Your task to perform on an android device: What's on my calendar tomorrow? Image 0: 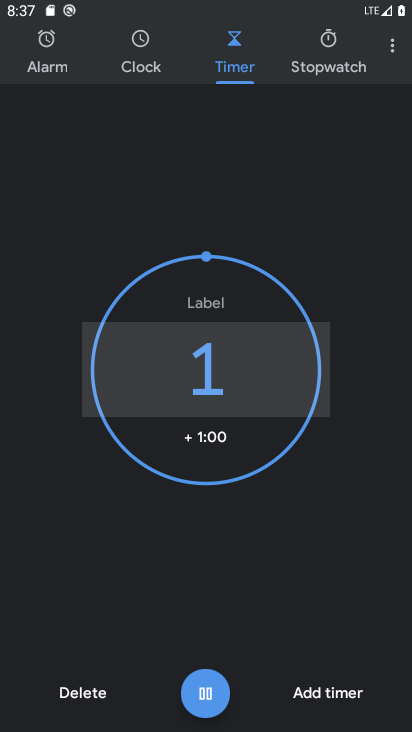
Step 0: press home button
Your task to perform on an android device: What's on my calendar tomorrow? Image 1: 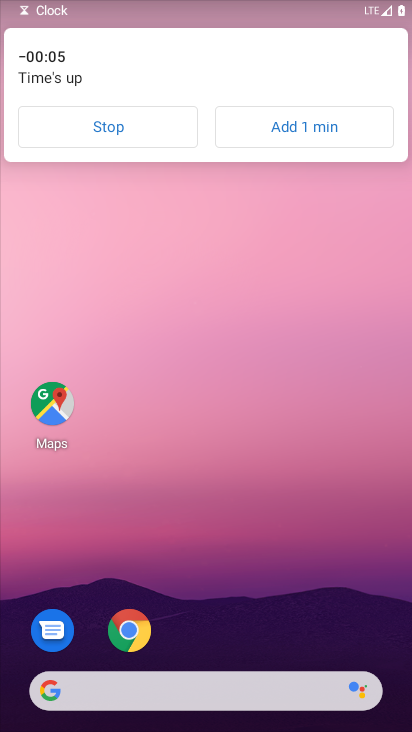
Step 1: click (94, 127)
Your task to perform on an android device: What's on my calendar tomorrow? Image 2: 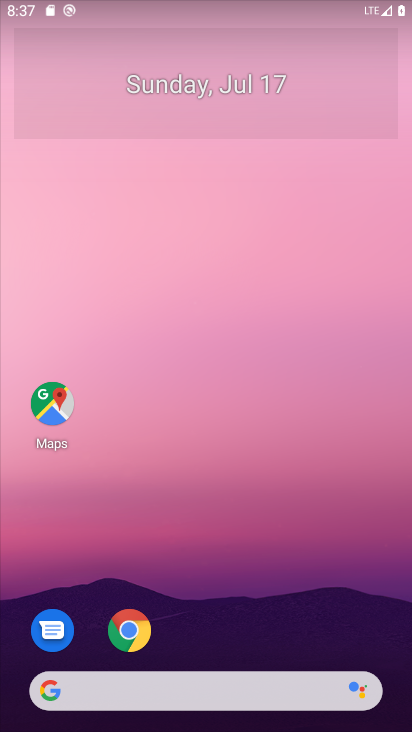
Step 2: drag from (244, 661) to (351, 20)
Your task to perform on an android device: What's on my calendar tomorrow? Image 3: 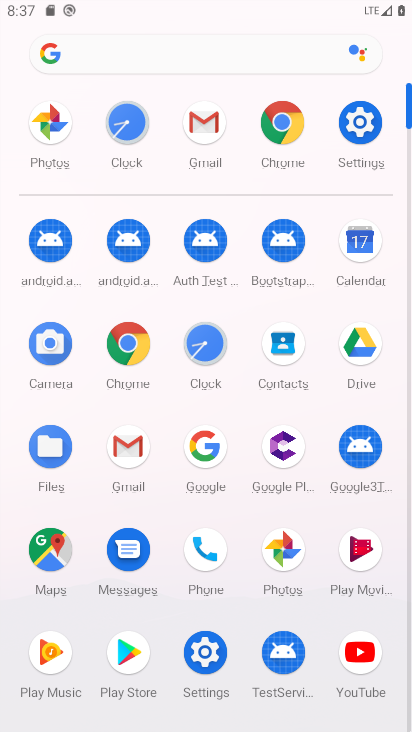
Step 3: click (356, 262)
Your task to perform on an android device: What's on my calendar tomorrow? Image 4: 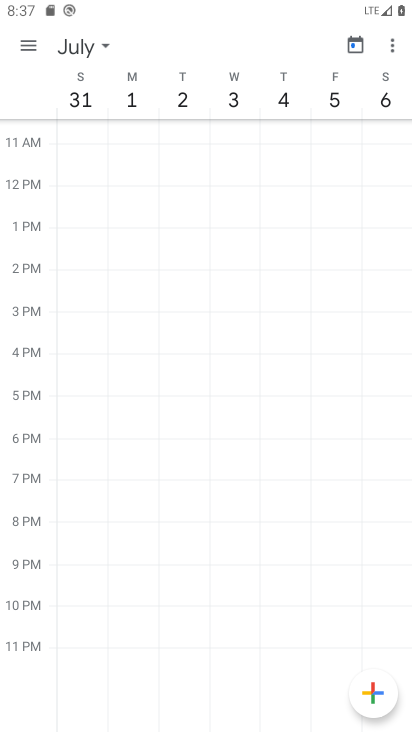
Step 4: drag from (72, 104) to (385, 83)
Your task to perform on an android device: What's on my calendar tomorrow? Image 5: 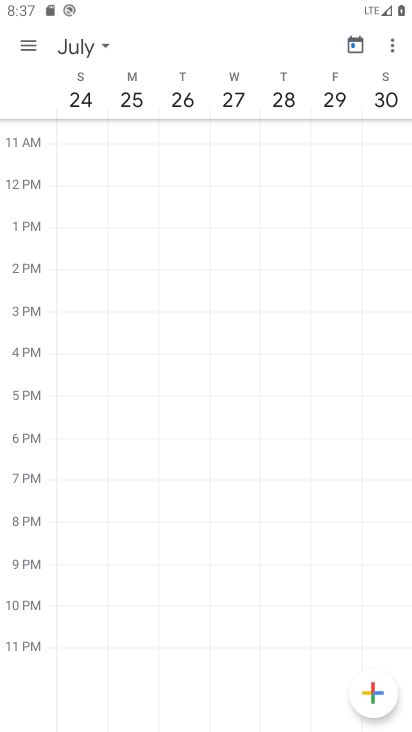
Step 5: drag from (101, 103) to (411, 232)
Your task to perform on an android device: What's on my calendar tomorrow? Image 6: 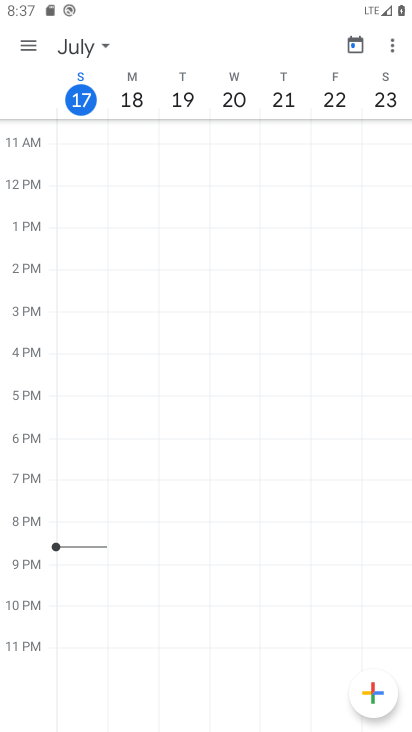
Step 6: click (23, 38)
Your task to perform on an android device: What's on my calendar tomorrow? Image 7: 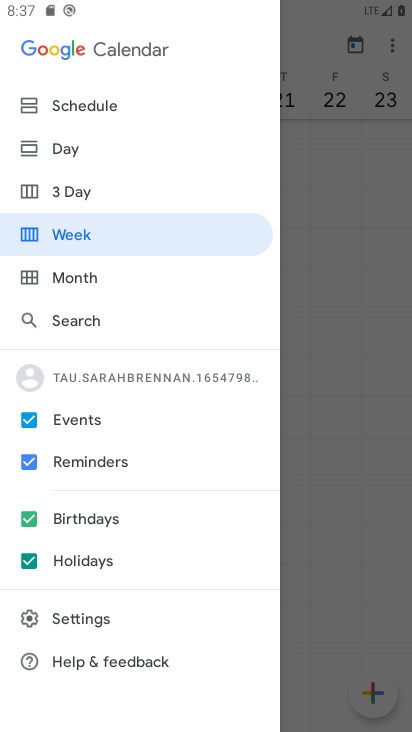
Step 7: click (93, 190)
Your task to perform on an android device: What's on my calendar tomorrow? Image 8: 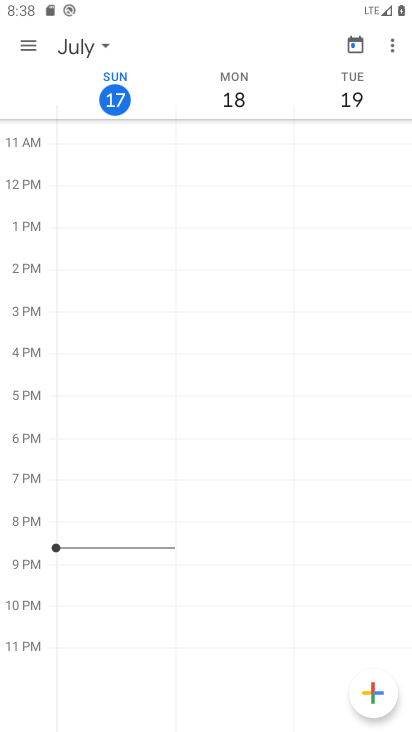
Step 8: task complete